Your task to perform on an android device: set an alarm Image 0: 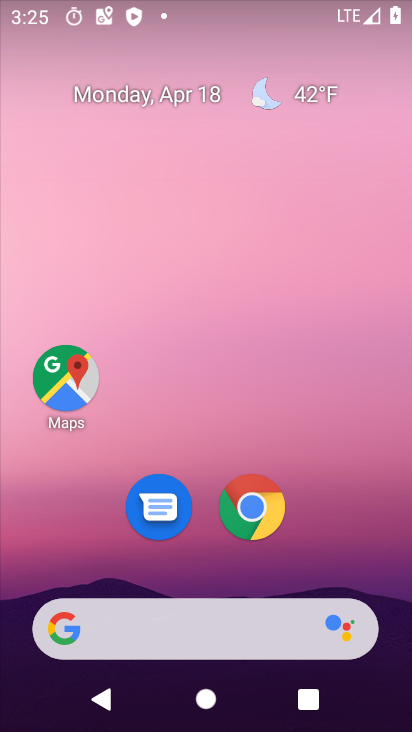
Step 0: drag from (341, 541) to (337, 105)
Your task to perform on an android device: set an alarm Image 1: 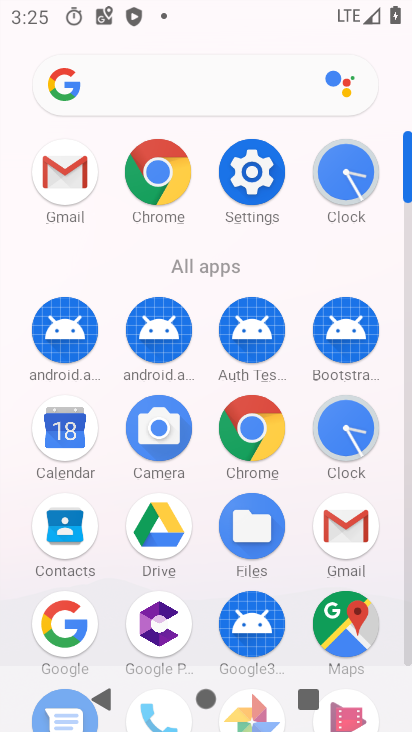
Step 1: click (340, 441)
Your task to perform on an android device: set an alarm Image 2: 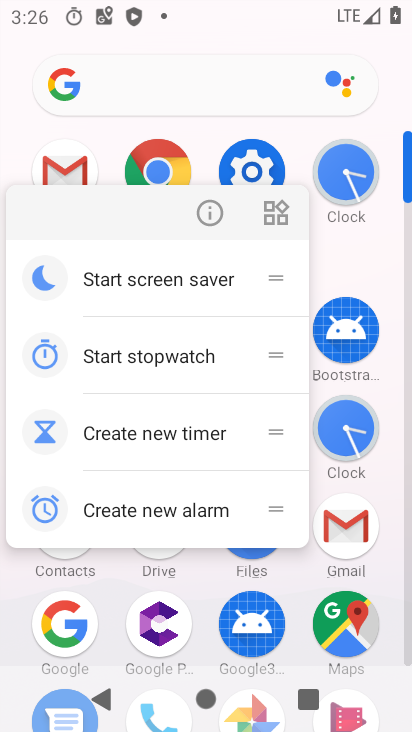
Step 2: click (340, 441)
Your task to perform on an android device: set an alarm Image 3: 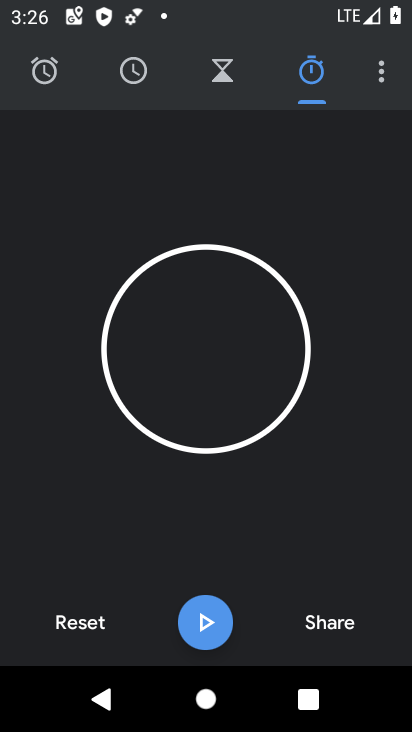
Step 3: click (39, 68)
Your task to perform on an android device: set an alarm Image 4: 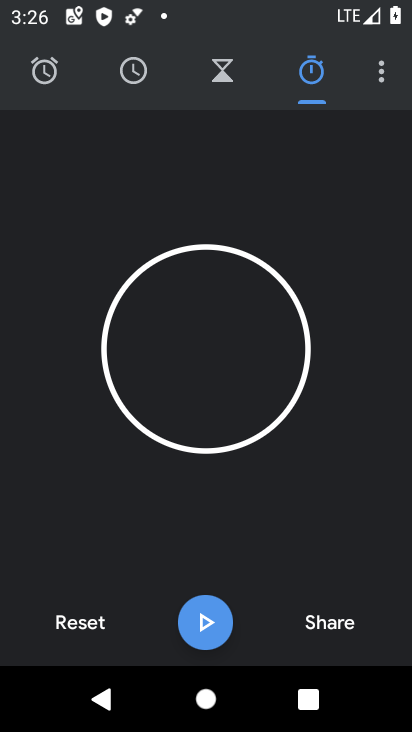
Step 4: click (34, 66)
Your task to perform on an android device: set an alarm Image 5: 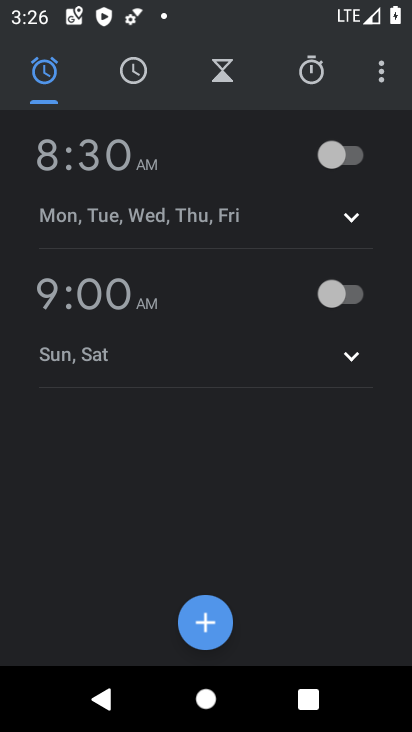
Step 5: click (210, 627)
Your task to perform on an android device: set an alarm Image 6: 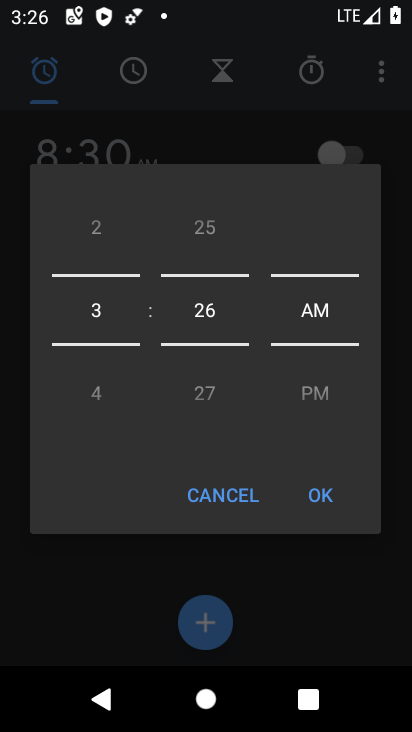
Step 6: click (329, 499)
Your task to perform on an android device: set an alarm Image 7: 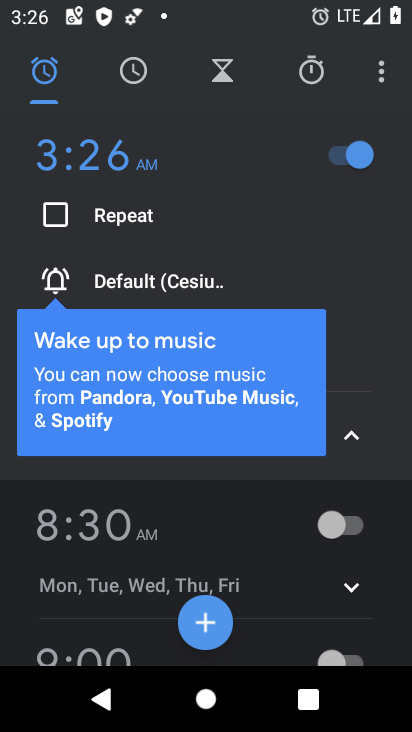
Step 7: task complete